Your task to perform on an android device: Add "bose soundlink mini" to the cart on walmart Image 0: 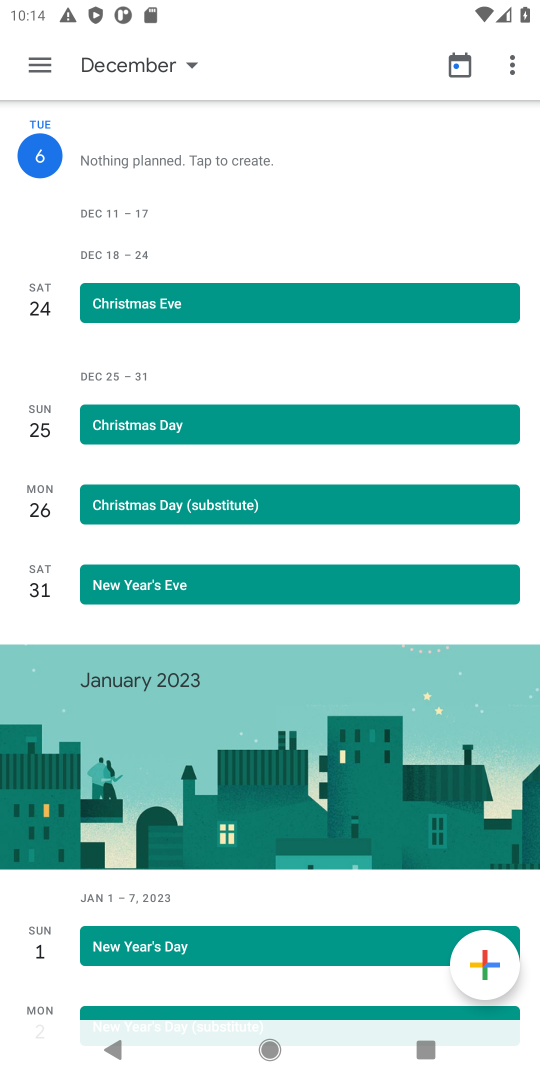
Step 0: task complete